Your task to perform on an android device: set the stopwatch Image 0: 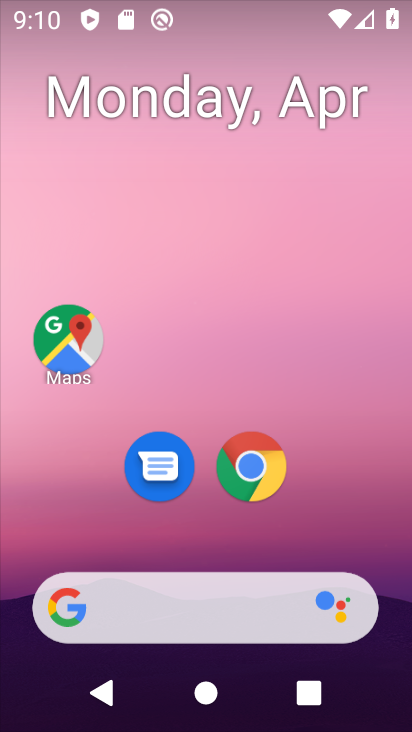
Step 0: drag from (184, 395) to (198, 11)
Your task to perform on an android device: set the stopwatch Image 1: 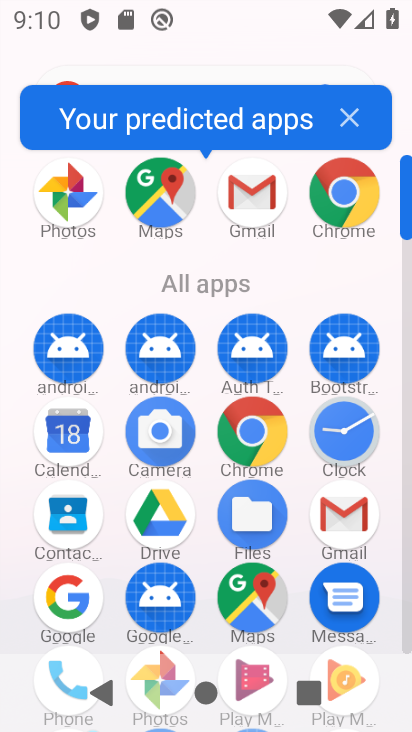
Step 1: click (329, 443)
Your task to perform on an android device: set the stopwatch Image 2: 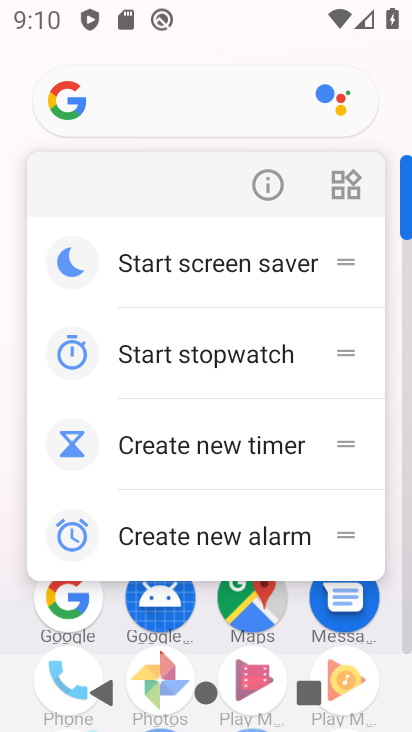
Step 2: click (386, 410)
Your task to perform on an android device: set the stopwatch Image 3: 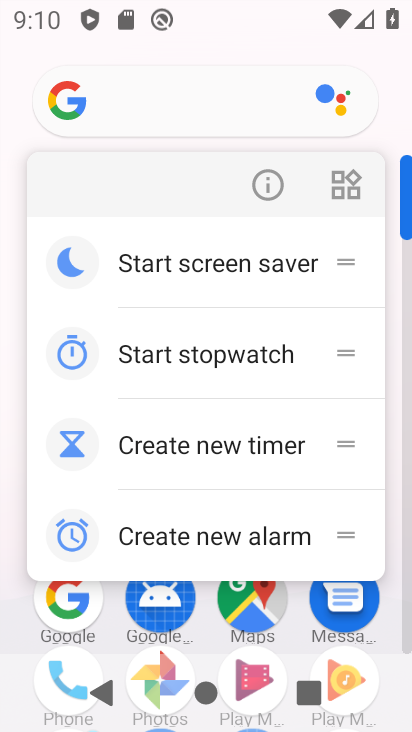
Step 3: click (395, 413)
Your task to perform on an android device: set the stopwatch Image 4: 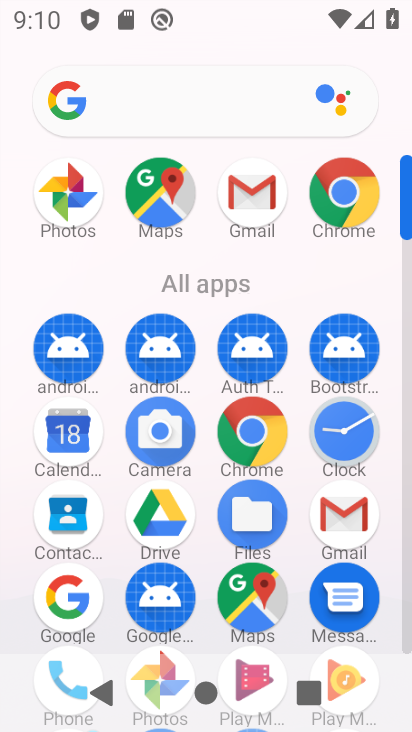
Step 4: click (347, 432)
Your task to perform on an android device: set the stopwatch Image 5: 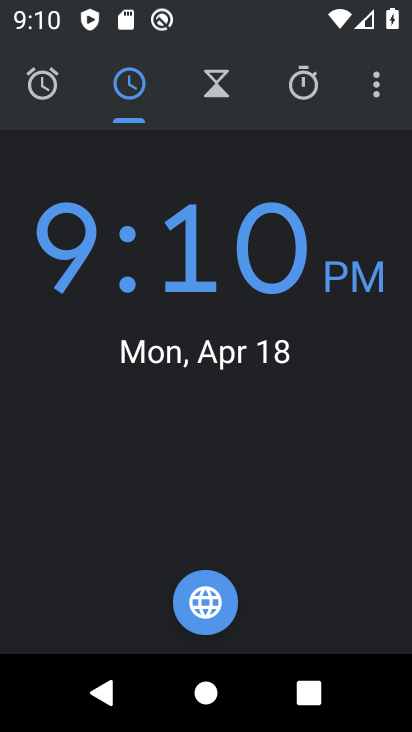
Step 5: click (298, 83)
Your task to perform on an android device: set the stopwatch Image 6: 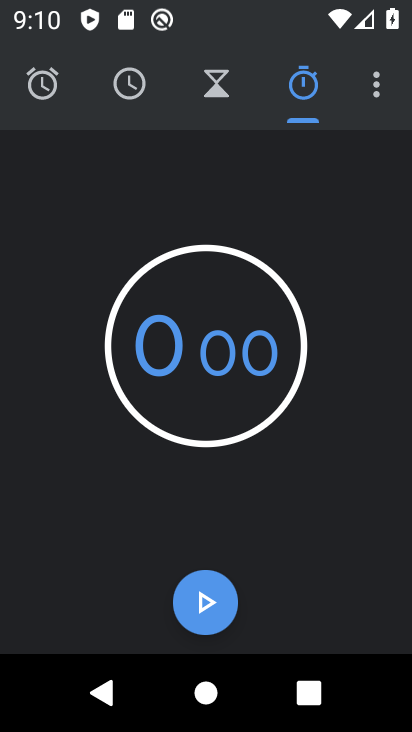
Step 6: click (236, 594)
Your task to perform on an android device: set the stopwatch Image 7: 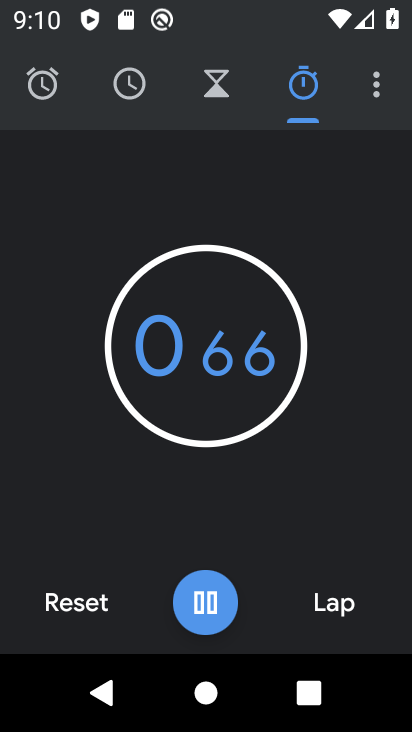
Step 7: click (214, 605)
Your task to perform on an android device: set the stopwatch Image 8: 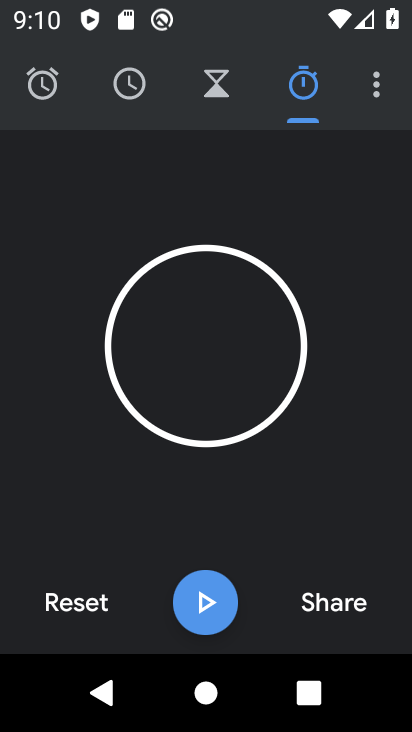
Step 8: task complete